Your task to perform on an android device: Search for vegetarian restaurants on Maps Image 0: 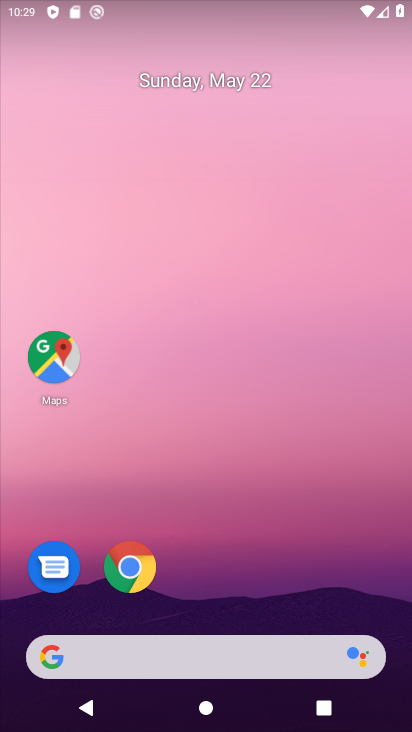
Step 0: click (52, 350)
Your task to perform on an android device: Search for vegetarian restaurants on Maps Image 1: 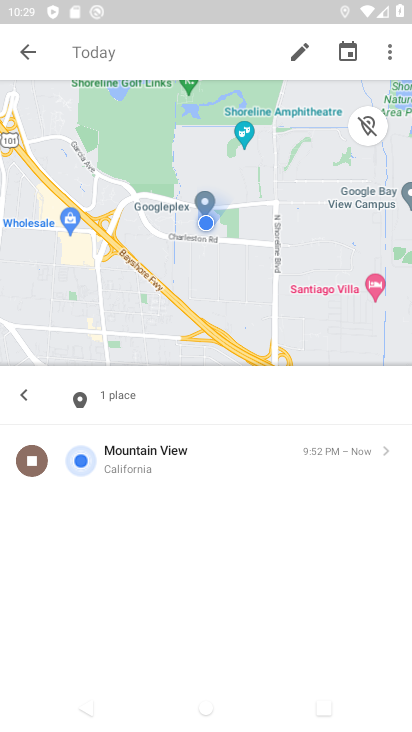
Step 1: press back button
Your task to perform on an android device: Search for vegetarian restaurants on Maps Image 2: 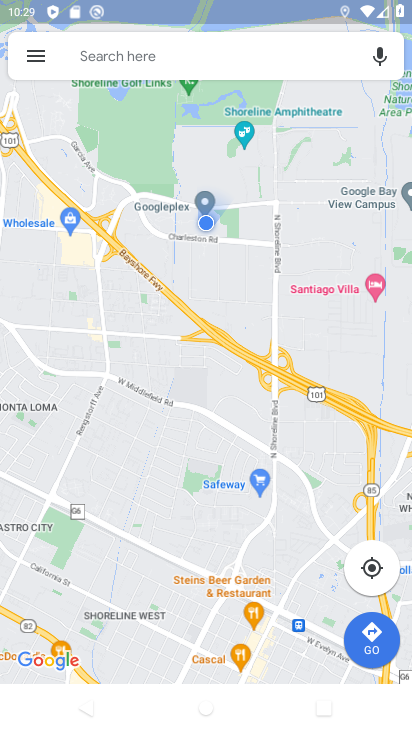
Step 2: click (27, 57)
Your task to perform on an android device: Search for vegetarian restaurants on Maps Image 3: 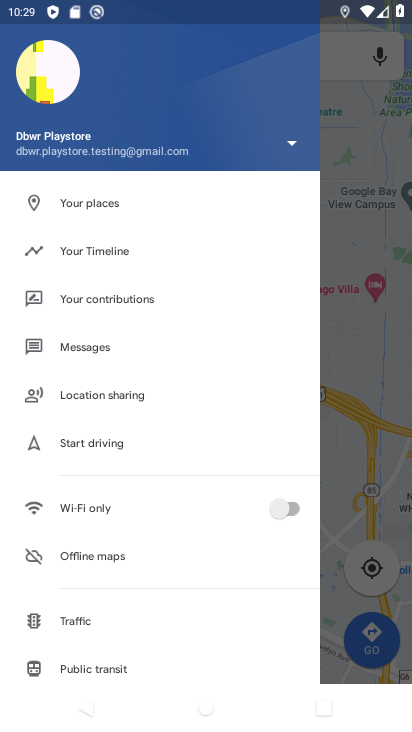
Step 3: click (393, 312)
Your task to perform on an android device: Search for vegetarian restaurants on Maps Image 4: 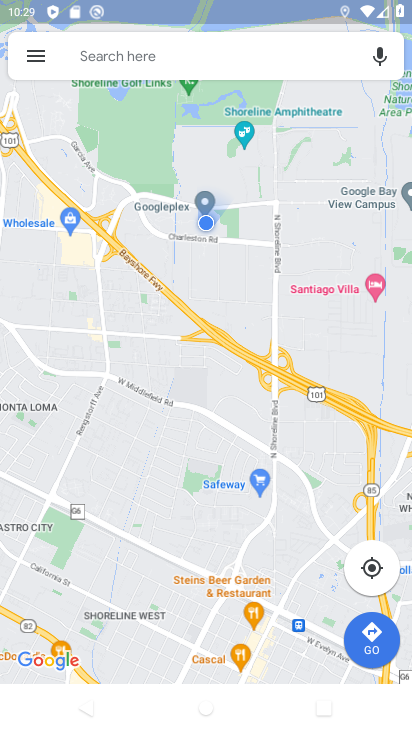
Step 4: click (176, 50)
Your task to perform on an android device: Search for vegetarian restaurants on Maps Image 5: 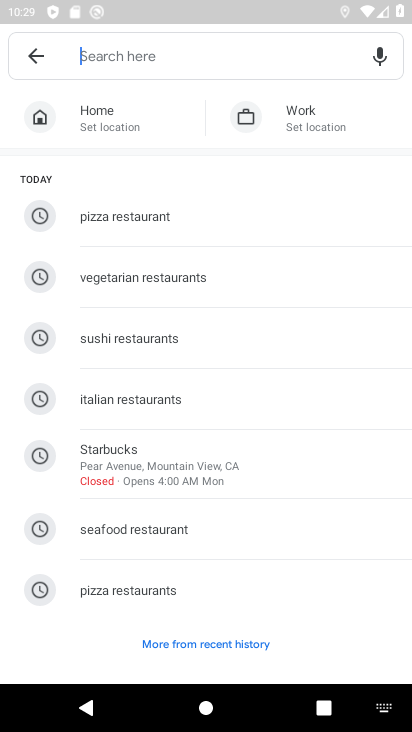
Step 5: type "vegetarian restaurants"
Your task to perform on an android device: Search for vegetarian restaurants on Maps Image 6: 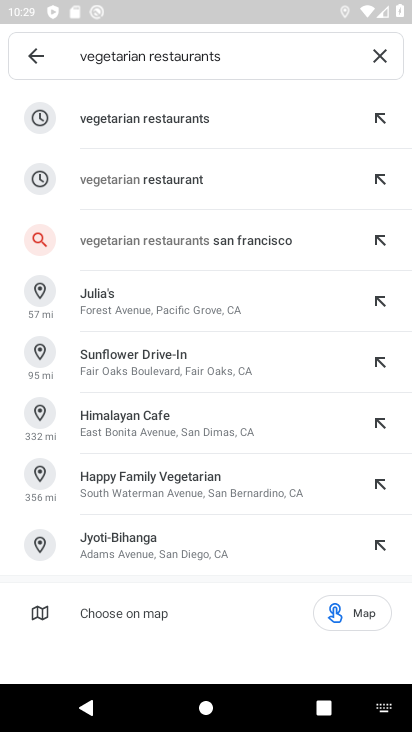
Step 6: click (150, 114)
Your task to perform on an android device: Search for vegetarian restaurants on Maps Image 7: 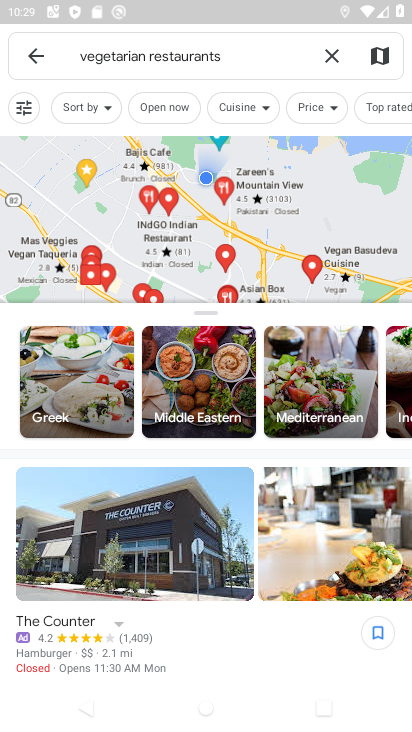
Step 7: task complete